Your task to perform on an android device: What's the weather? Image 0: 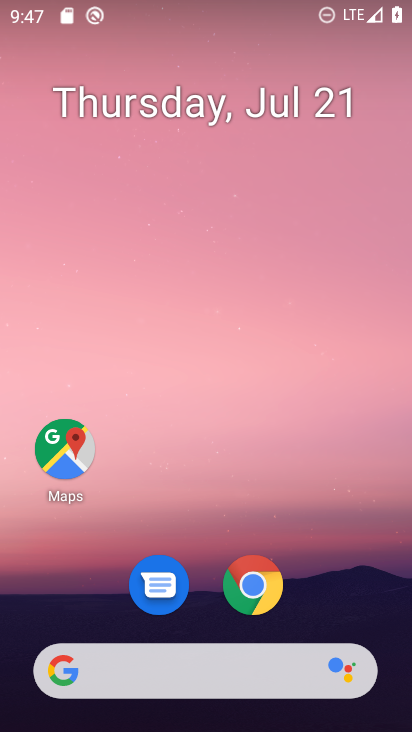
Step 0: click (218, 679)
Your task to perform on an android device: What's the weather? Image 1: 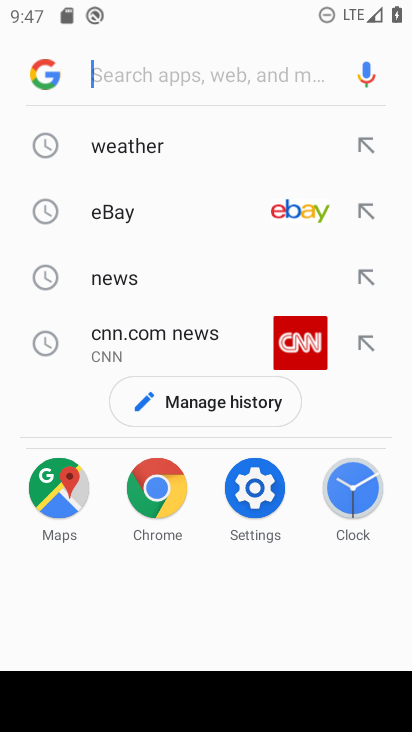
Step 1: click (154, 151)
Your task to perform on an android device: What's the weather? Image 2: 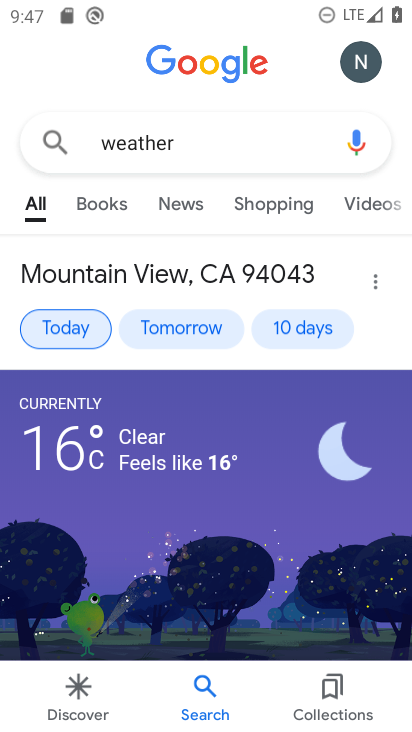
Step 2: click (77, 319)
Your task to perform on an android device: What's the weather? Image 3: 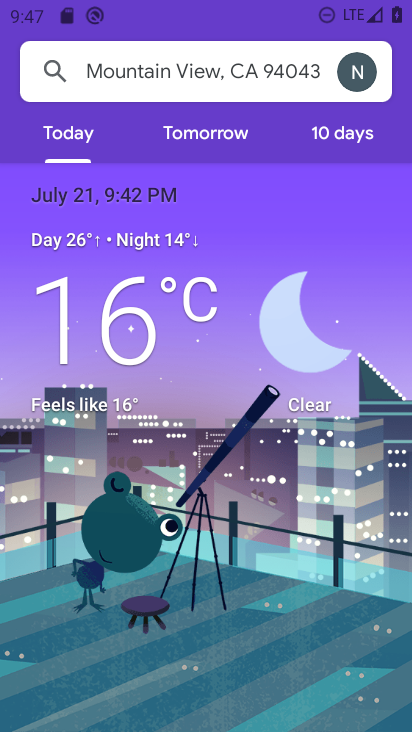
Step 3: task complete